Your task to perform on an android device: remove spam from my inbox in the gmail app Image 0: 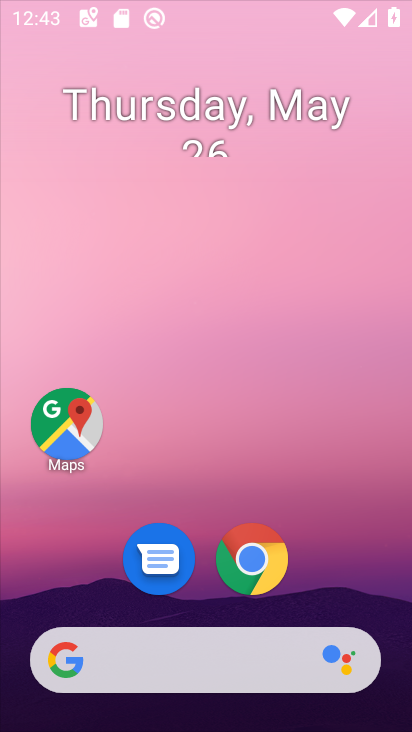
Step 0: press home button
Your task to perform on an android device: remove spam from my inbox in the gmail app Image 1: 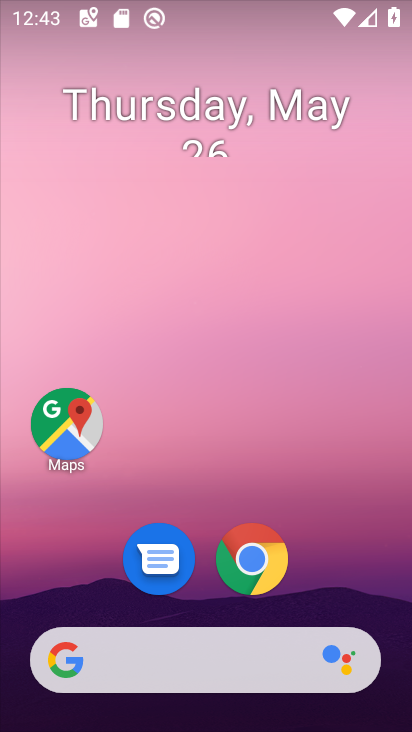
Step 1: drag from (332, 617) to (364, 248)
Your task to perform on an android device: remove spam from my inbox in the gmail app Image 2: 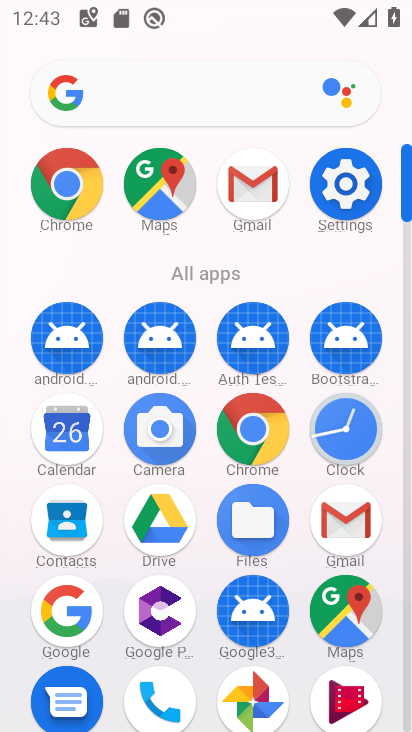
Step 2: click (249, 194)
Your task to perform on an android device: remove spam from my inbox in the gmail app Image 3: 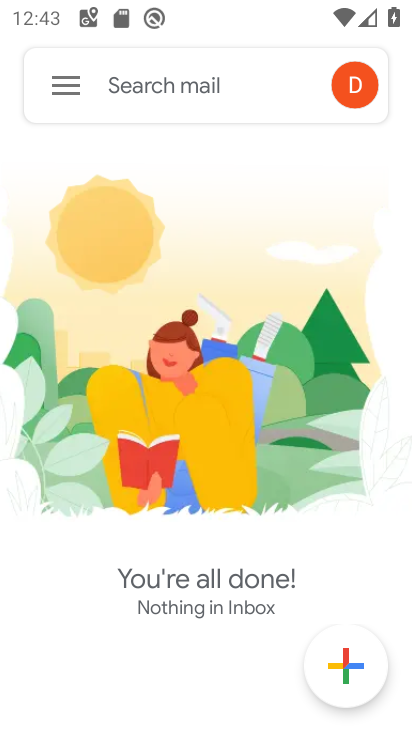
Step 3: click (70, 91)
Your task to perform on an android device: remove spam from my inbox in the gmail app Image 4: 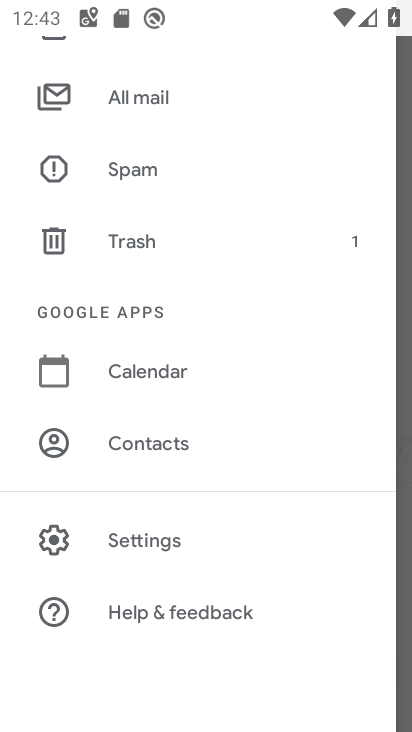
Step 4: click (131, 171)
Your task to perform on an android device: remove spam from my inbox in the gmail app Image 5: 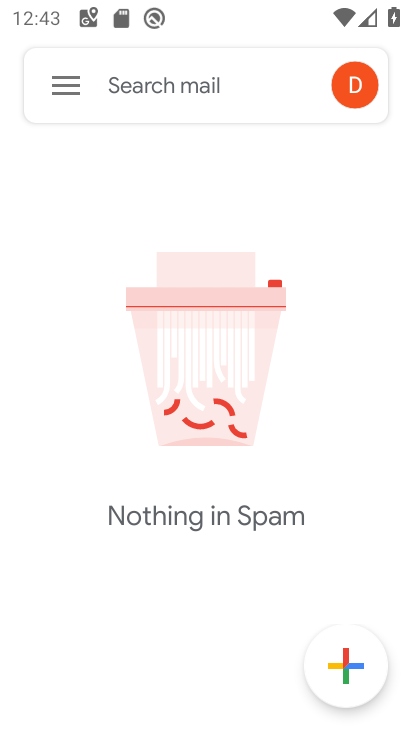
Step 5: task complete